Your task to perform on an android device: delete location history Image 0: 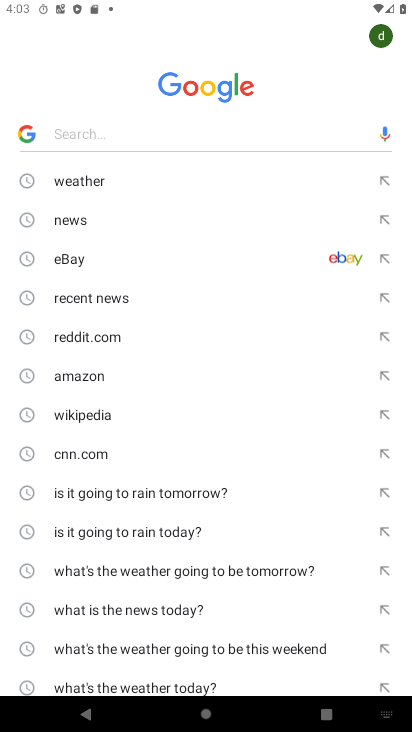
Step 0: press home button
Your task to perform on an android device: delete location history Image 1: 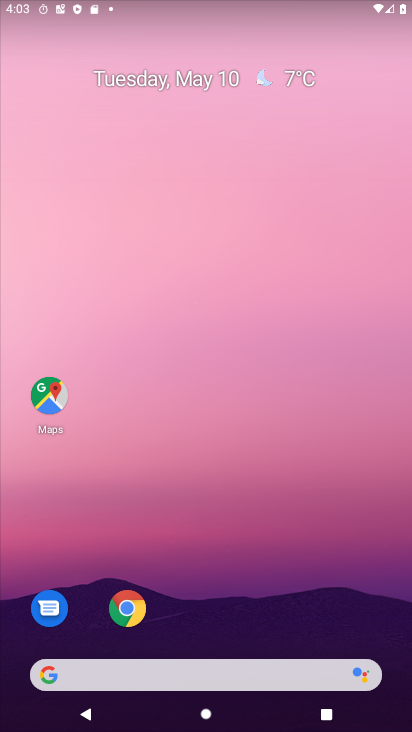
Step 1: click (40, 398)
Your task to perform on an android device: delete location history Image 2: 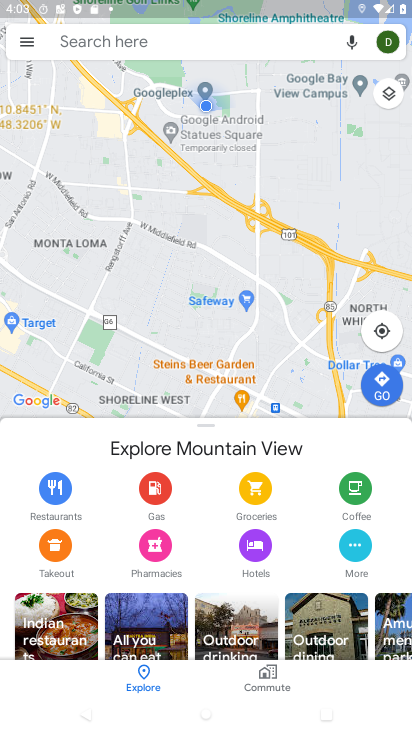
Step 2: click (27, 39)
Your task to perform on an android device: delete location history Image 3: 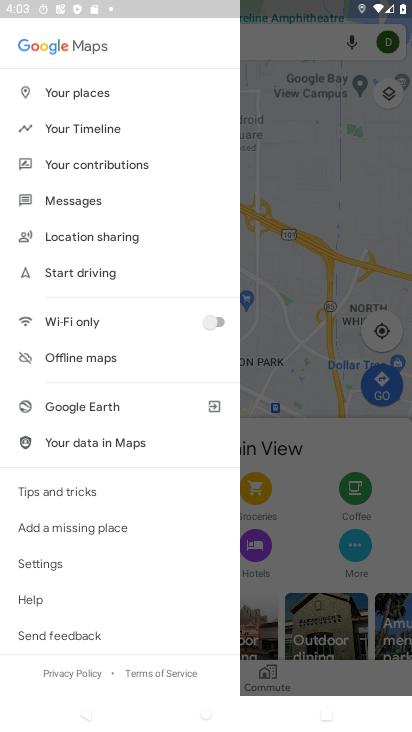
Step 3: click (91, 136)
Your task to perform on an android device: delete location history Image 4: 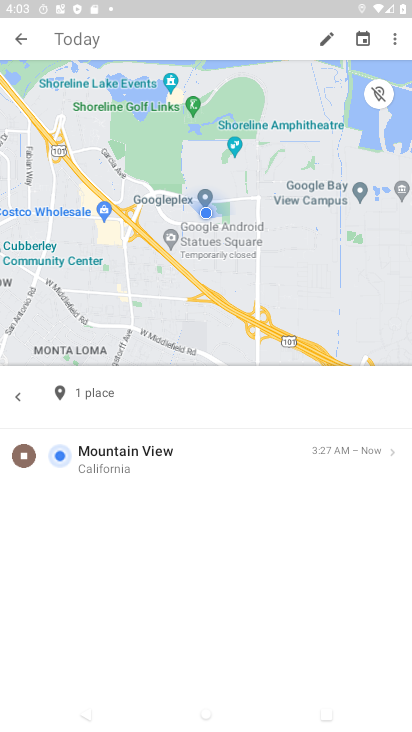
Step 4: click (392, 39)
Your task to perform on an android device: delete location history Image 5: 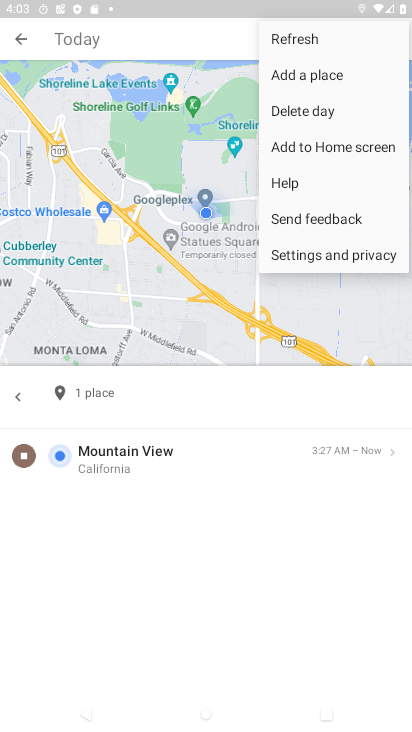
Step 5: click (292, 256)
Your task to perform on an android device: delete location history Image 6: 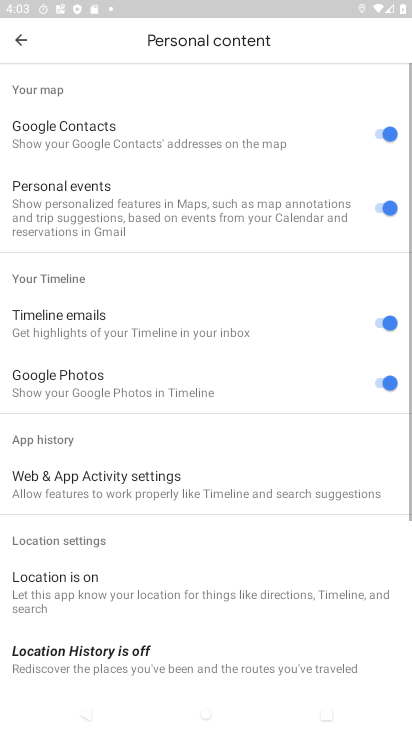
Step 6: drag from (171, 550) to (179, 206)
Your task to perform on an android device: delete location history Image 7: 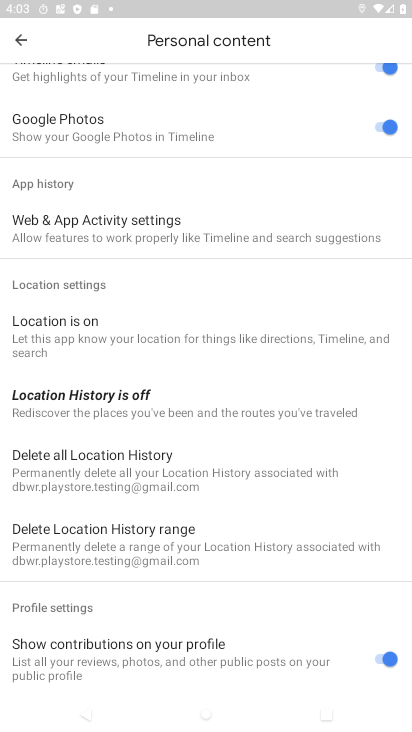
Step 7: click (86, 461)
Your task to perform on an android device: delete location history Image 8: 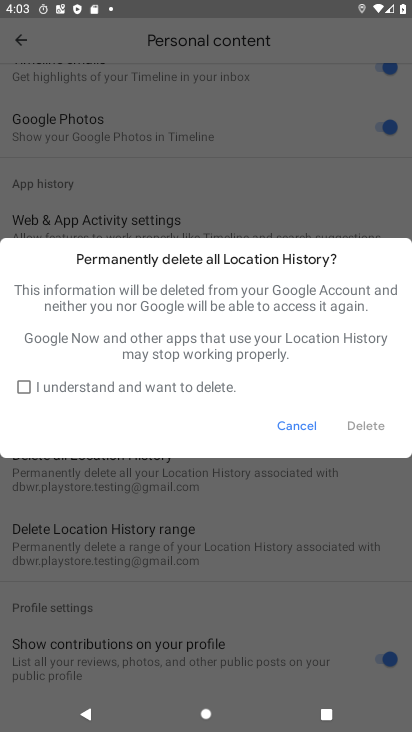
Step 8: click (16, 376)
Your task to perform on an android device: delete location history Image 9: 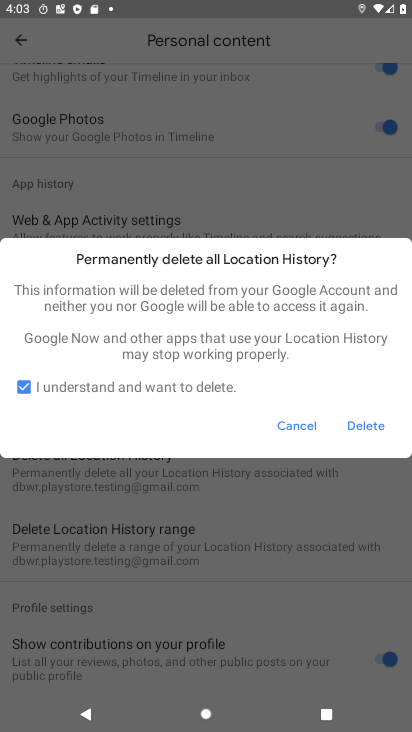
Step 9: click (360, 427)
Your task to perform on an android device: delete location history Image 10: 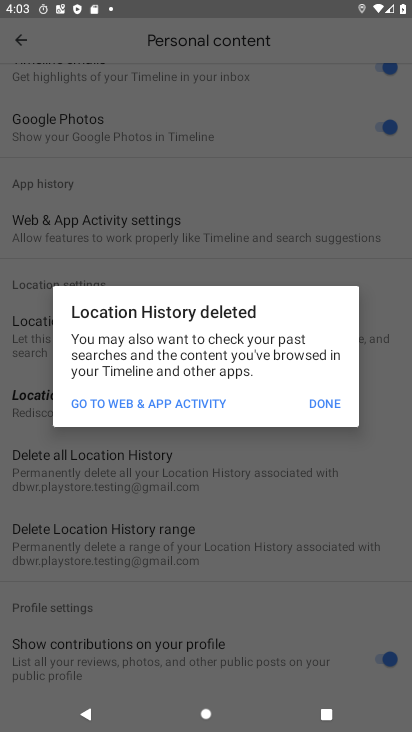
Step 10: click (320, 407)
Your task to perform on an android device: delete location history Image 11: 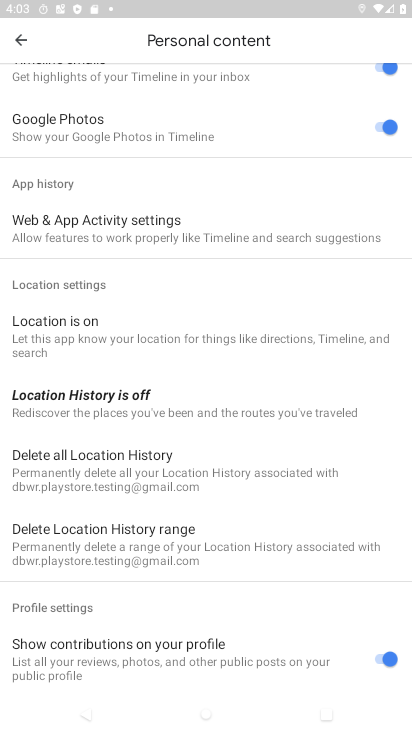
Step 11: task complete